Your task to perform on an android device: change keyboard looks Image 0: 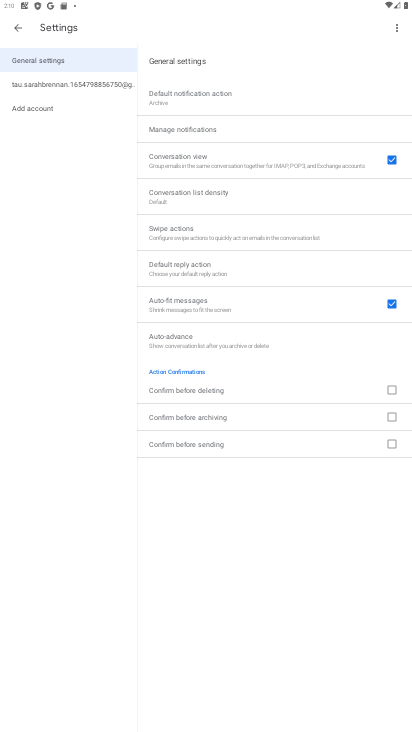
Step 0: press home button
Your task to perform on an android device: change keyboard looks Image 1: 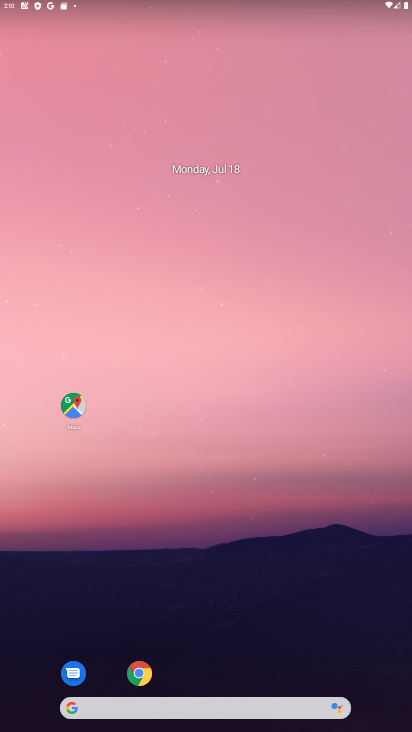
Step 1: drag from (182, 711) to (147, 127)
Your task to perform on an android device: change keyboard looks Image 2: 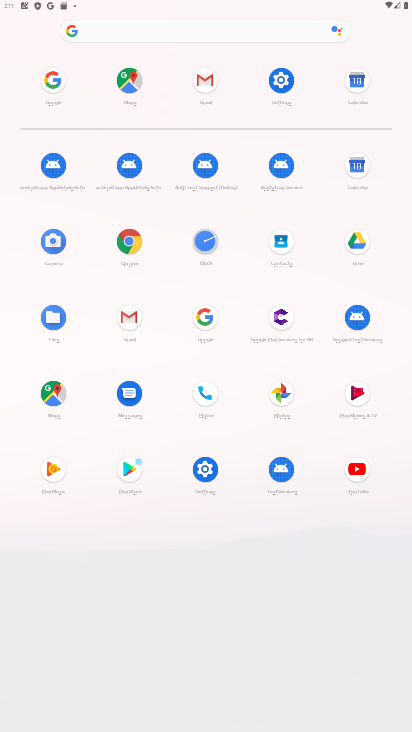
Step 2: click (206, 471)
Your task to perform on an android device: change keyboard looks Image 3: 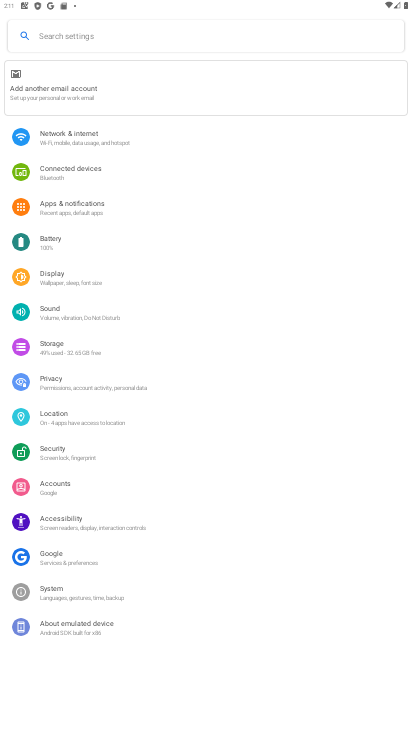
Step 3: click (63, 594)
Your task to perform on an android device: change keyboard looks Image 4: 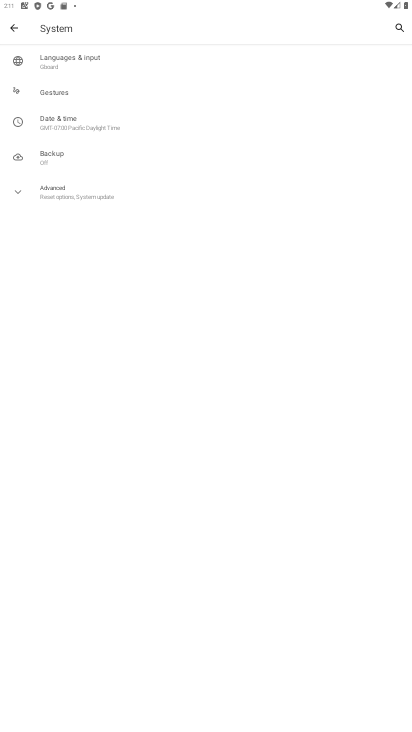
Step 4: click (74, 64)
Your task to perform on an android device: change keyboard looks Image 5: 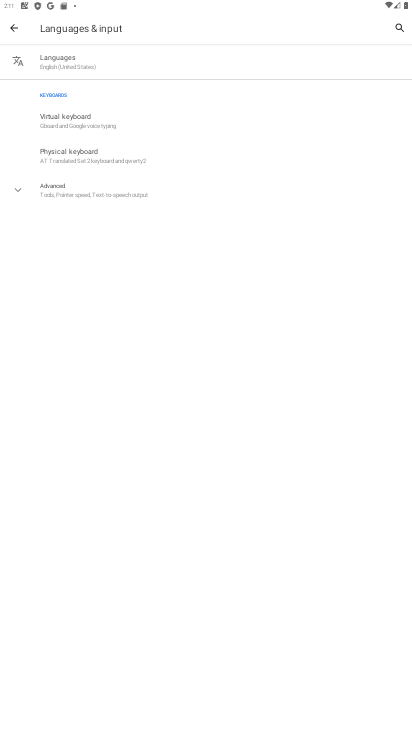
Step 5: click (88, 125)
Your task to perform on an android device: change keyboard looks Image 6: 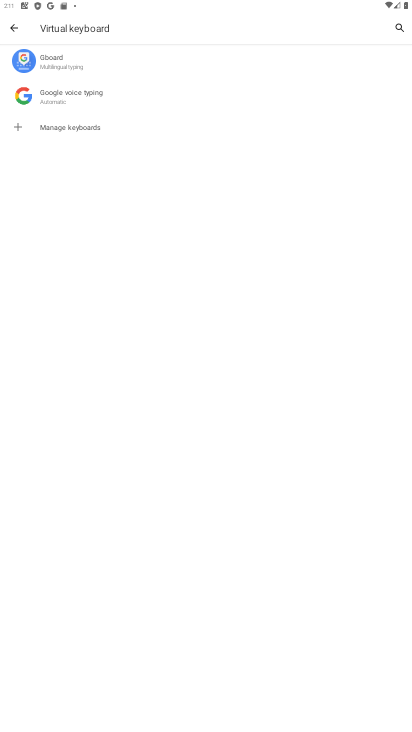
Step 6: click (60, 68)
Your task to perform on an android device: change keyboard looks Image 7: 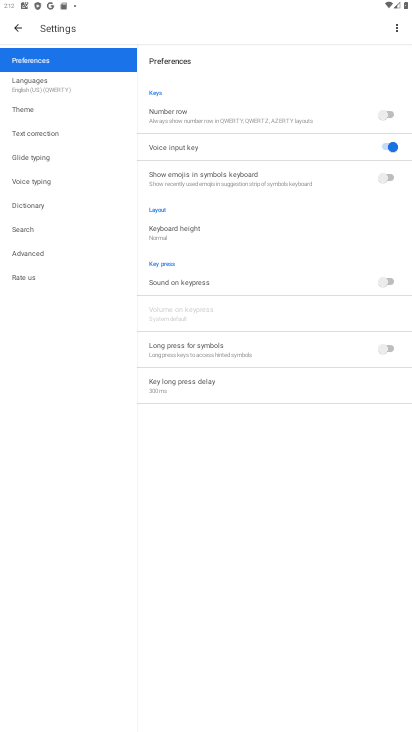
Step 7: click (35, 108)
Your task to perform on an android device: change keyboard looks Image 8: 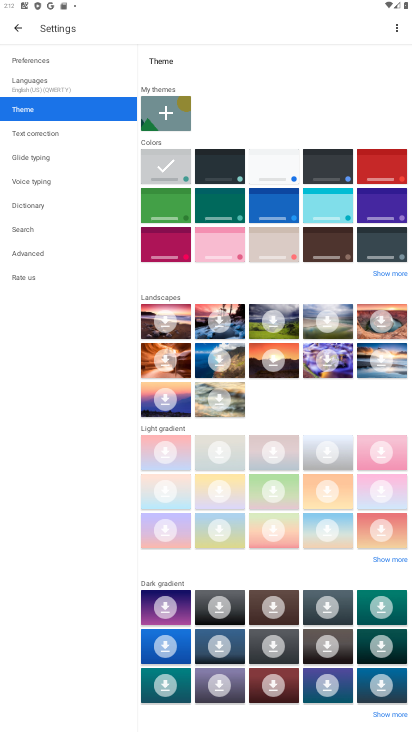
Step 8: click (279, 238)
Your task to perform on an android device: change keyboard looks Image 9: 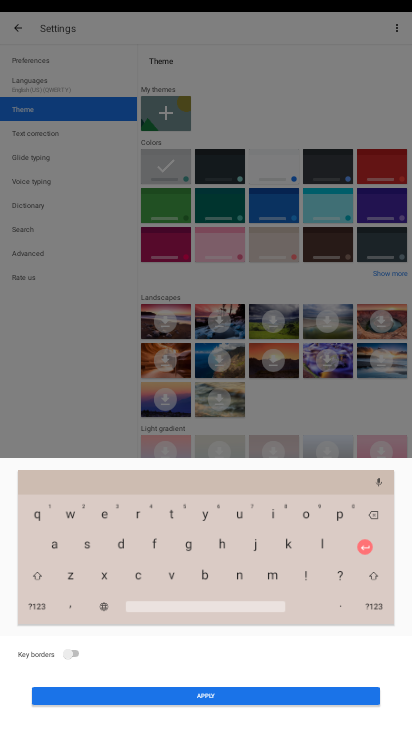
Step 9: click (70, 652)
Your task to perform on an android device: change keyboard looks Image 10: 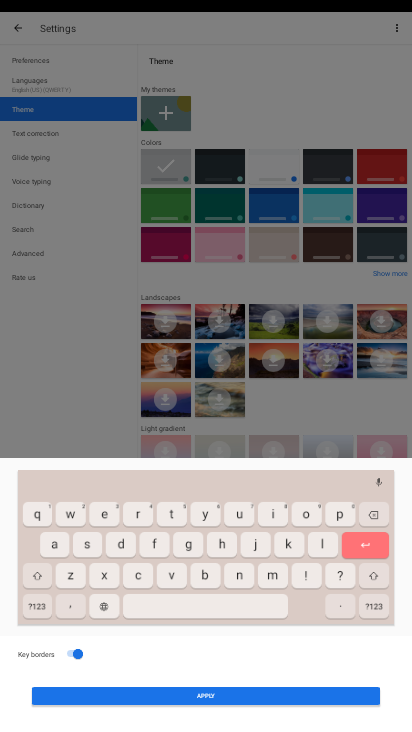
Step 10: click (218, 691)
Your task to perform on an android device: change keyboard looks Image 11: 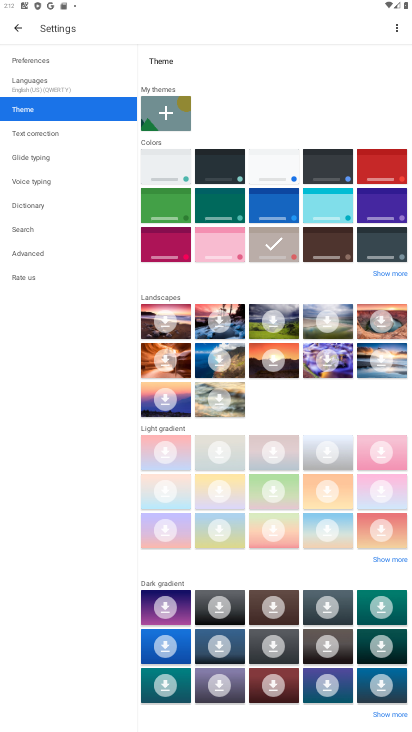
Step 11: task complete